Your task to perform on an android device: Go to accessibility settings Image 0: 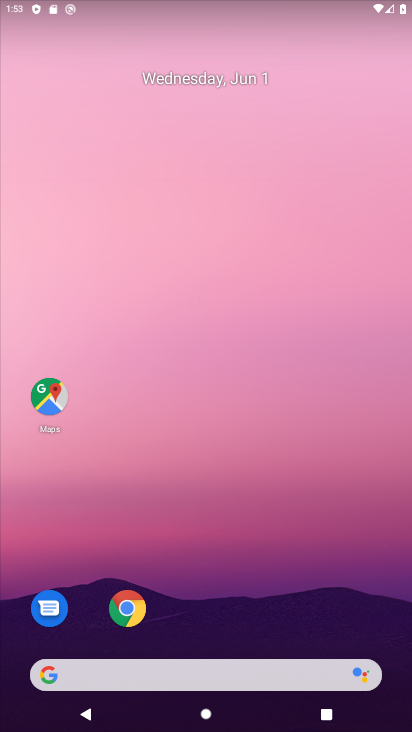
Step 0: drag from (387, 654) to (237, 46)
Your task to perform on an android device: Go to accessibility settings Image 1: 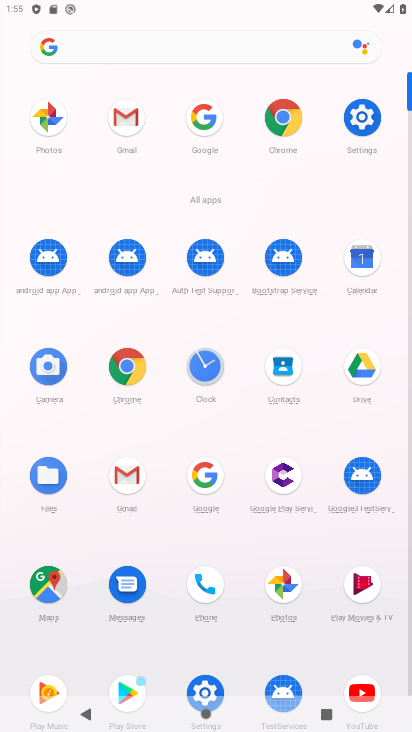
Step 1: click (373, 130)
Your task to perform on an android device: Go to accessibility settings Image 2: 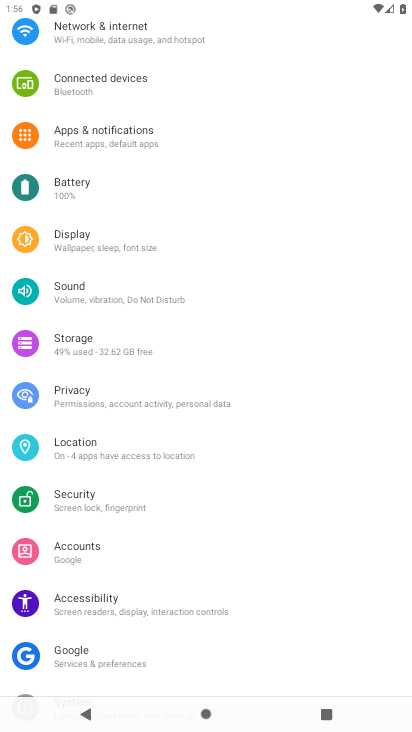
Step 2: click (152, 597)
Your task to perform on an android device: Go to accessibility settings Image 3: 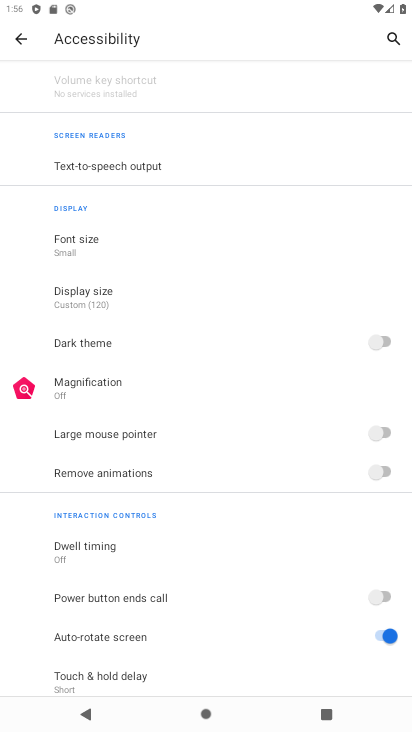
Step 3: task complete